Your task to perform on an android device: turn off data saver in the chrome app Image 0: 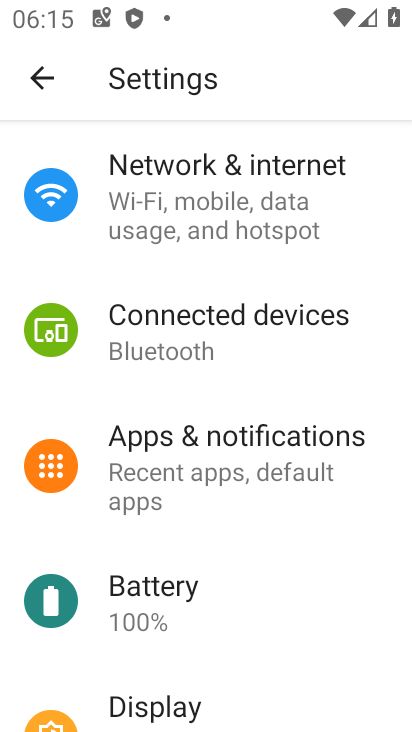
Step 0: press home button
Your task to perform on an android device: turn off data saver in the chrome app Image 1: 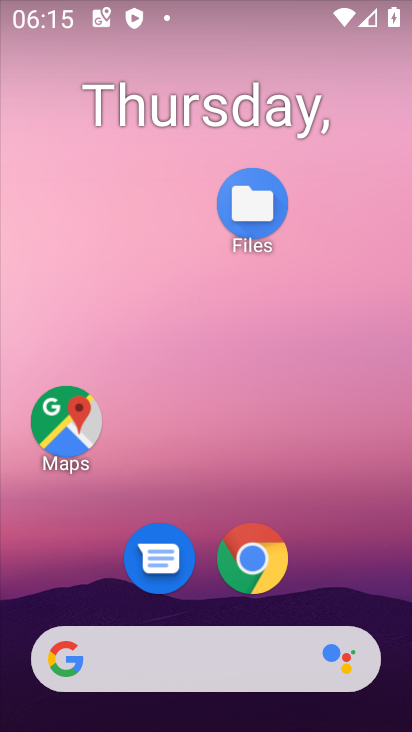
Step 1: click (267, 560)
Your task to perform on an android device: turn off data saver in the chrome app Image 2: 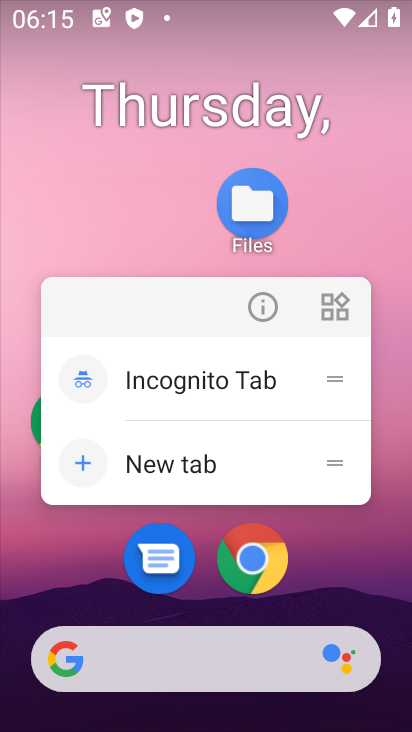
Step 2: click (267, 561)
Your task to perform on an android device: turn off data saver in the chrome app Image 3: 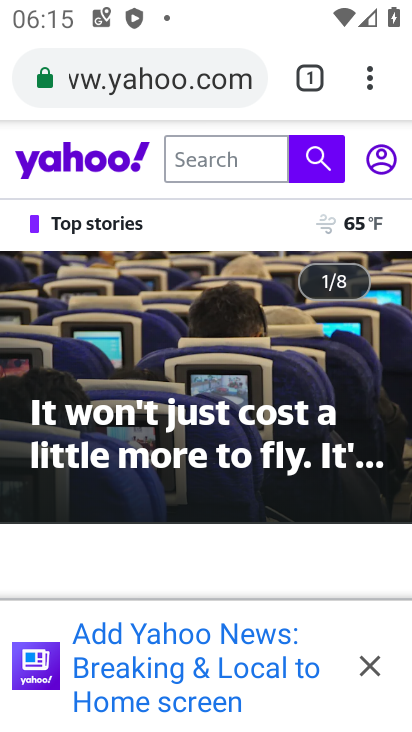
Step 3: click (373, 77)
Your task to perform on an android device: turn off data saver in the chrome app Image 4: 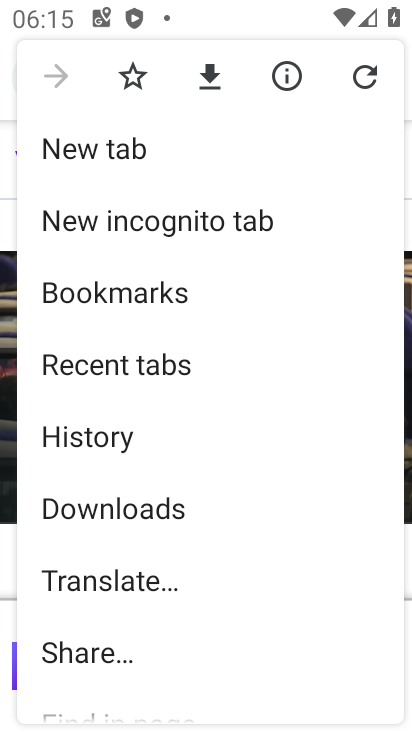
Step 4: drag from (246, 405) to (246, 296)
Your task to perform on an android device: turn off data saver in the chrome app Image 5: 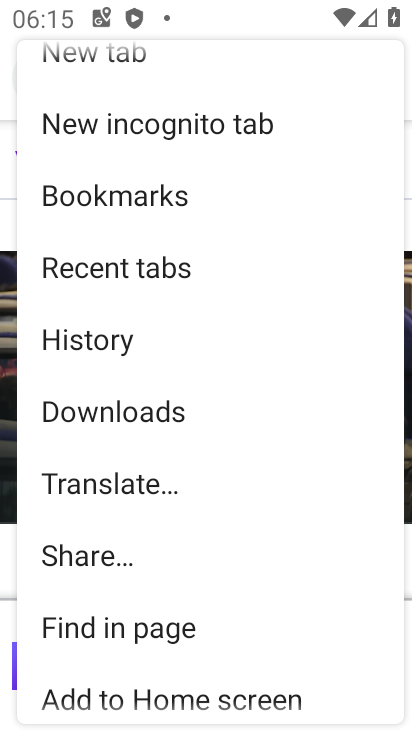
Step 5: click (225, 438)
Your task to perform on an android device: turn off data saver in the chrome app Image 6: 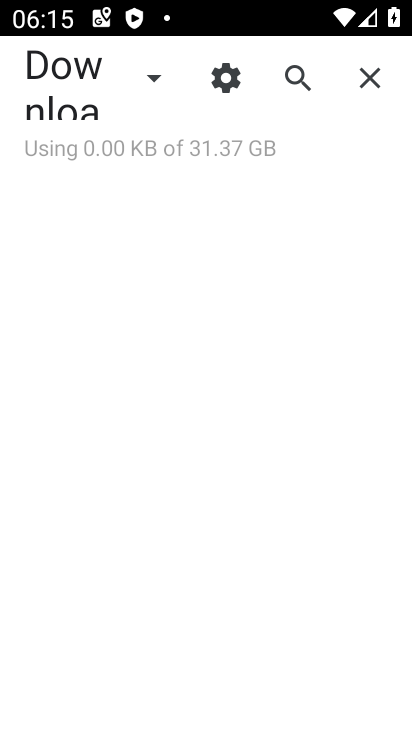
Step 6: drag from (131, 666) to (187, 248)
Your task to perform on an android device: turn off data saver in the chrome app Image 7: 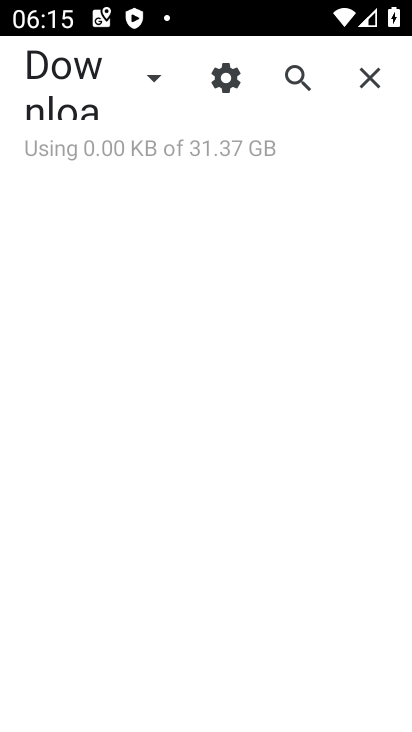
Step 7: click (369, 78)
Your task to perform on an android device: turn off data saver in the chrome app Image 8: 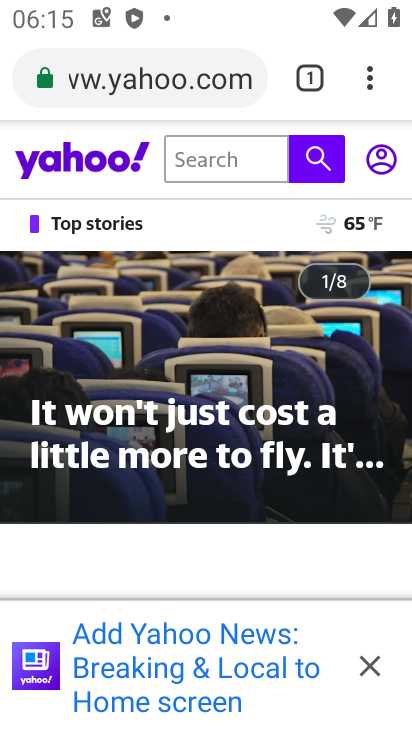
Step 8: click (366, 73)
Your task to perform on an android device: turn off data saver in the chrome app Image 9: 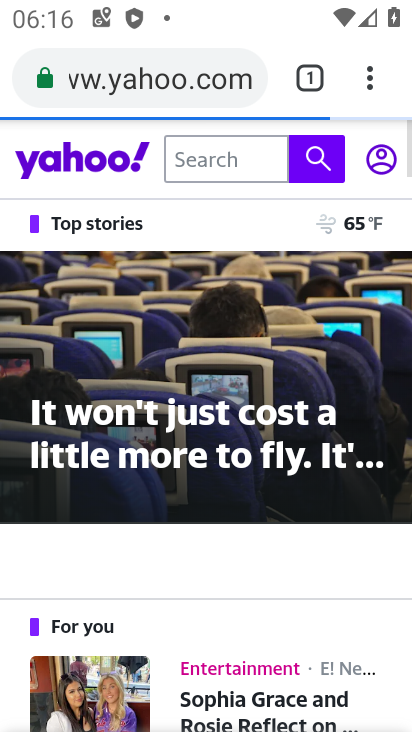
Step 9: click (367, 75)
Your task to perform on an android device: turn off data saver in the chrome app Image 10: 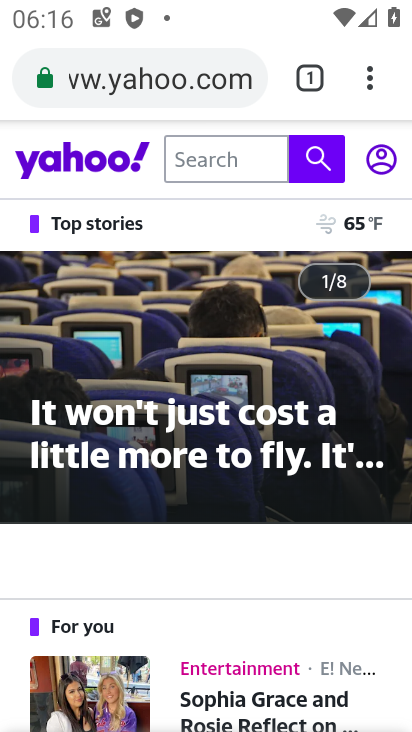
Step 10: click (373, 82)
Your task to perform on an android device: turn off data saver in the chrome app Image 11: 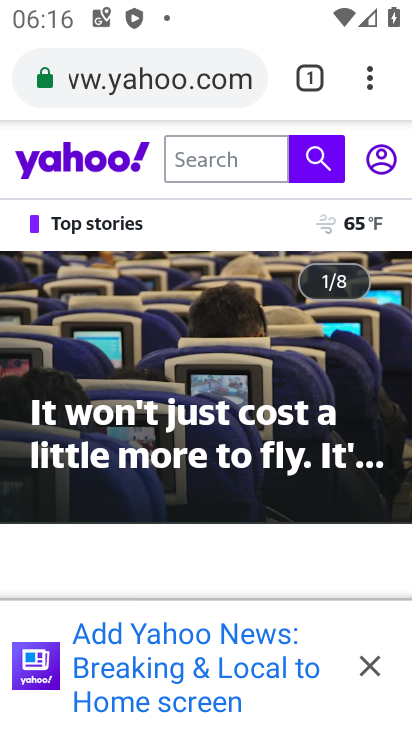
Step 11: click (373, 82)
Your task to perform on an android device: turn off data saver in the chrome app Image 12: 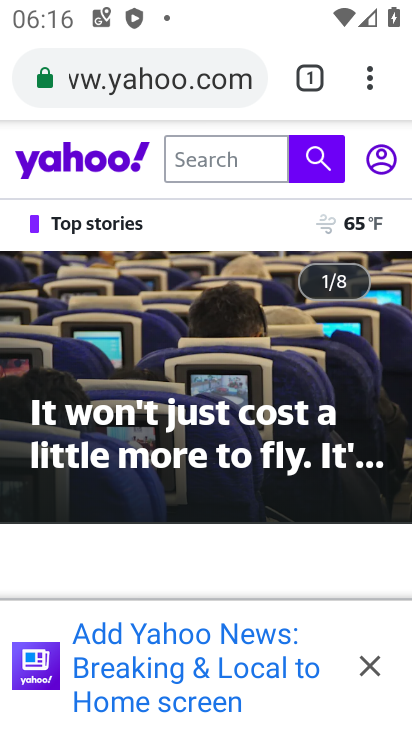
Step 12: click (373, 82)
Your task to perform on an android device: turn off data saver in the chrome app Image 13: 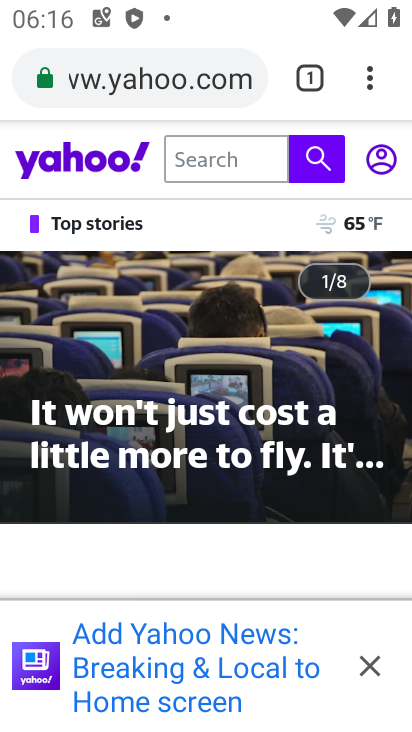
Step 13: click (373, 82)
Your task to perform on an android device: turn off data saver in the chrome app Image 14: 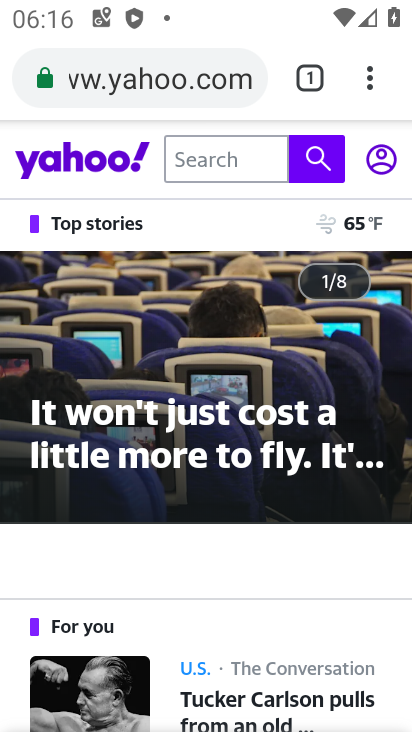
Step 14: click (367, 77)
Your task to perform on an android device: turn off data saver in the chrome app Image 15: 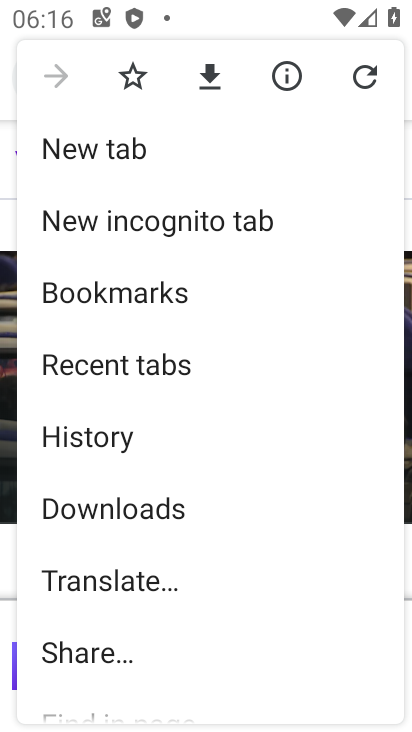
Step 15: drag from (125, 612) to (148, 273)
Your task to perform on an android device: turn off data saver in the chrome app Image 16: 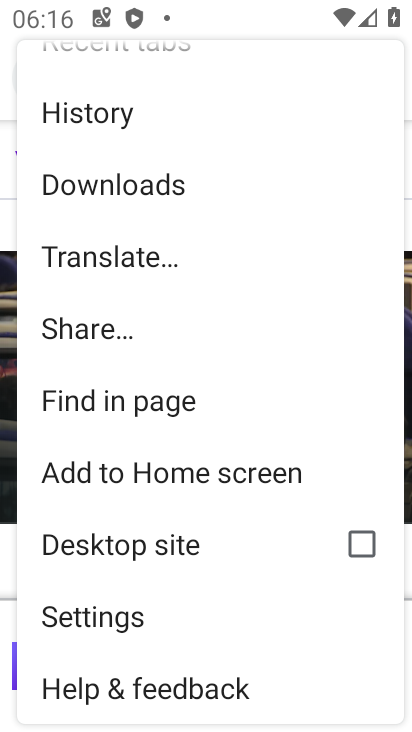
Step 16: drag from (155, 665) to (183, 278)
Your task to perform on an android device: turn off data saver in the chrome app Image 17: 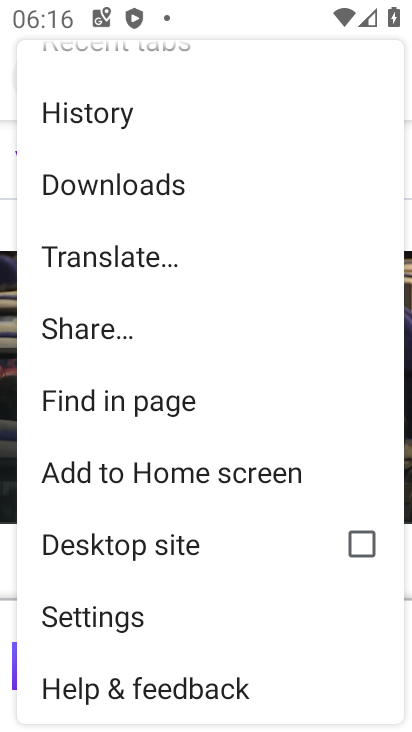
Step 17: drag from (144, 673) to (200, 346)
Your task to perform on an android device: turn off data saver in the chrome app Image 18: 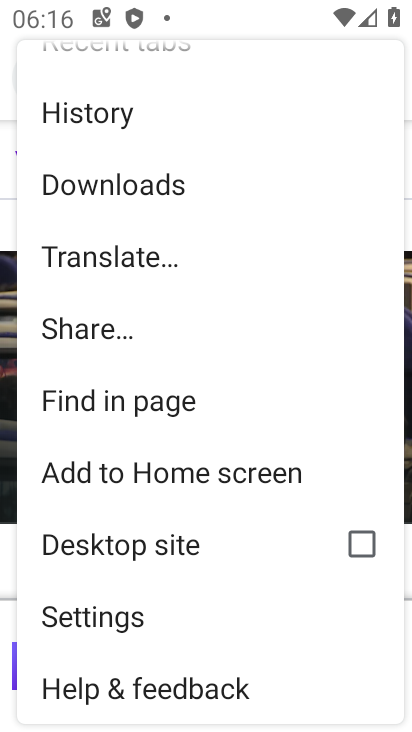
Step 18: drag from (265, 634) to (225, 414)
Your task to perform on an android device: turn off data saver in the chrome app Image 19: 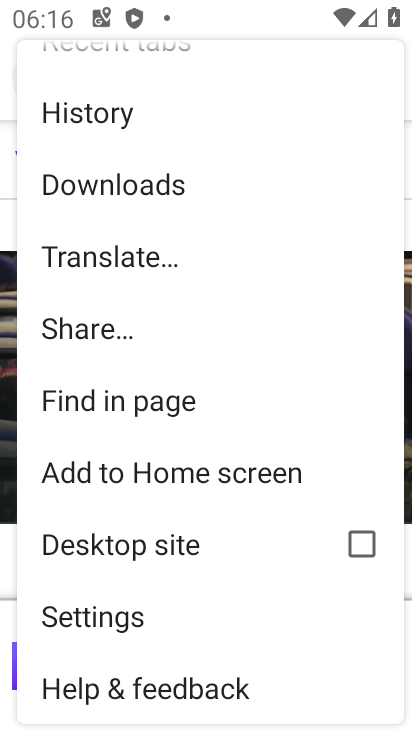
Step 19: drag from (237, 615) to (195, 222)
Your task to perform on an android device: turn off data saver in the chrome app Image 20: 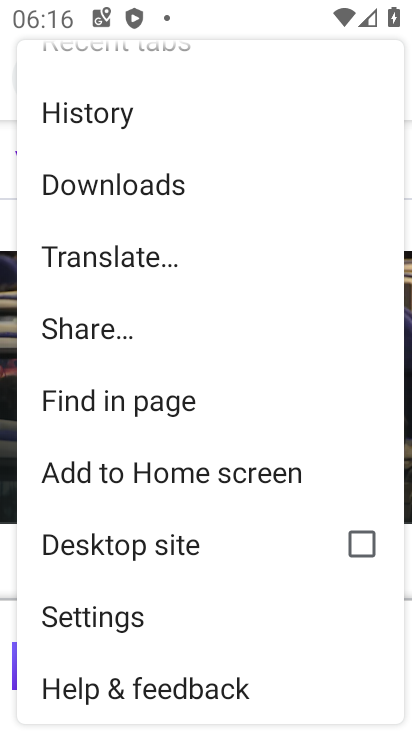
Step 20: click (133, 618)
Your task to perform on an android device: turn off data saver in the chrome app Image 21: 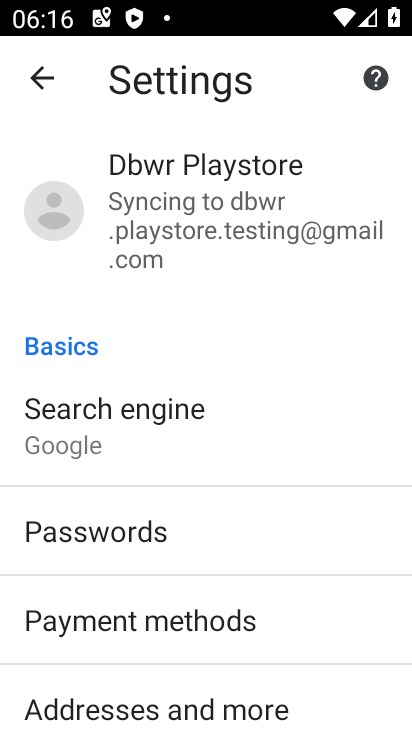
Step 21: drag from (220, 669) to (263, 307)
Your task to perform on an android device: turn off data saver in the chrome app Image 22: 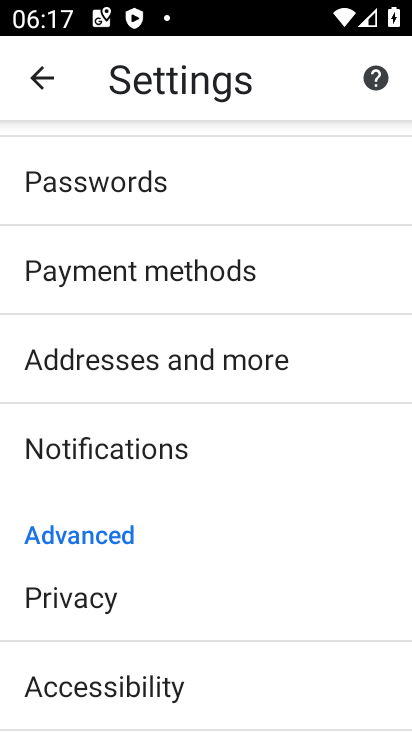
Step 22: drag from (218, 635) to (236, 349)
Your task to perform on an android device: turn off data saver in the chrome app Image 23: 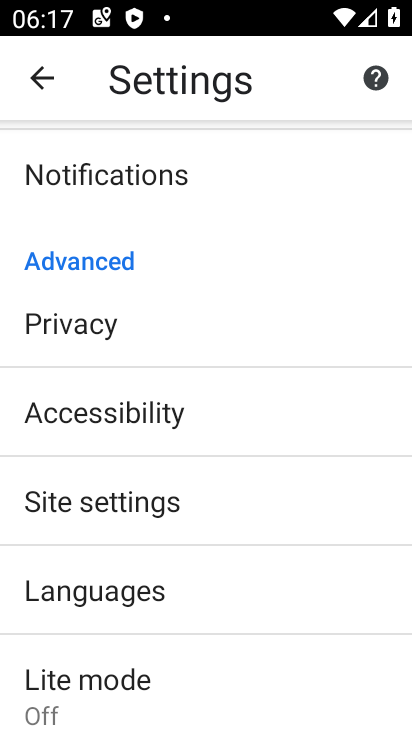
Step 23: click (106, 679)
Your task to perform on an android device: turn off data saver in the chrome app Image 24: 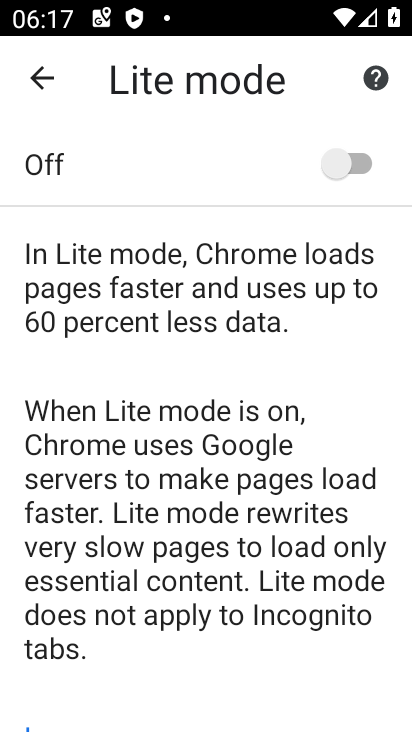
Step 24: task complete